Your task to perform on an android device: Search for Mexican restaurants on Maps Image 0: 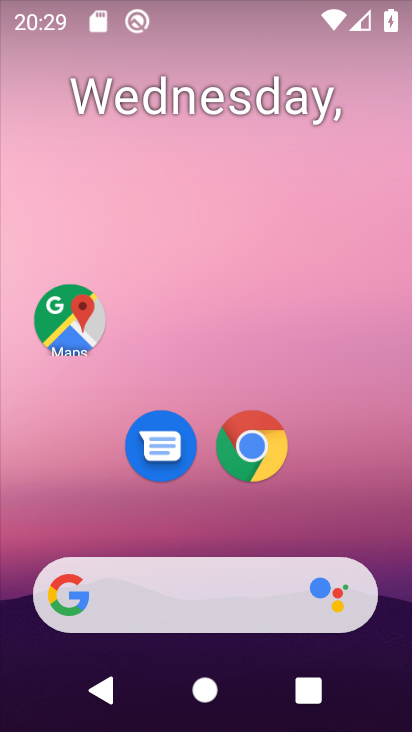
Step 0: click (79, 336)
Your task to perform on an android device: Search for Mexican restaurants on Maps Image 1: 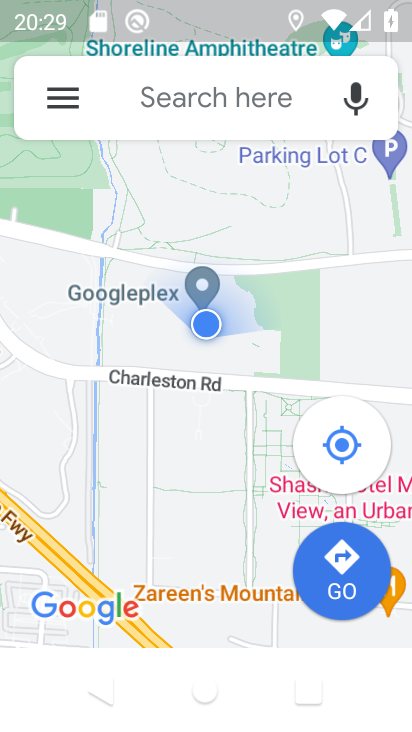
Step 1: click (195, 111)
Your task to perform on an android device: Search for Mexican restaurants on Maps Image 2: 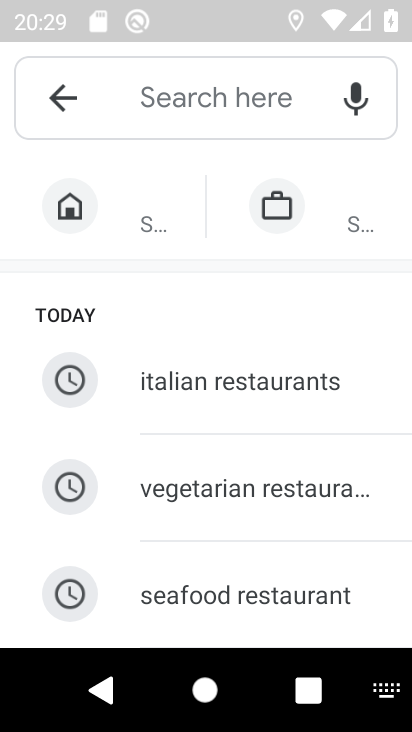
Step 2: type "mexican restaurants"
Your task to perform on an android device: Search for Mexican restaurants on Maps Image 3: 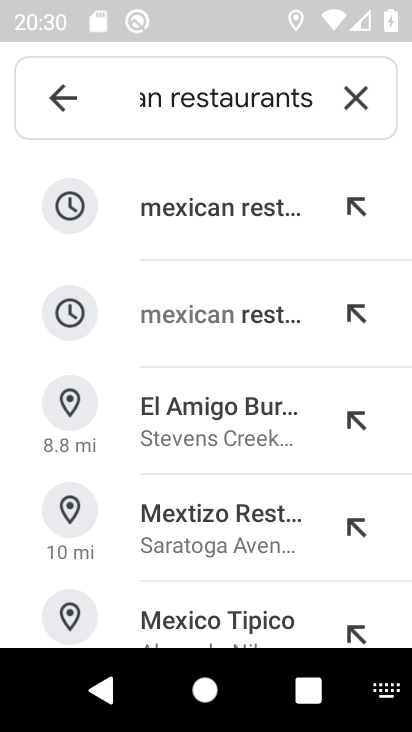
Step 3: click (185, 211)
Your task to perform on an android device: Search for Mexican restaurants on Maps Image 4: 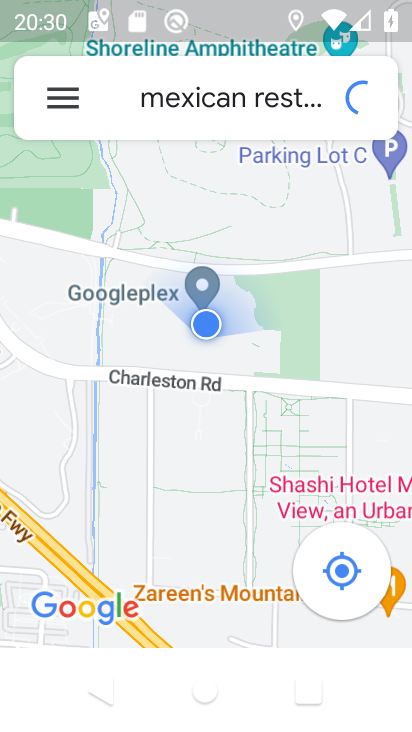
Step 4: task complete